Your task to perform on an android device: star an email in the gmail app Image 0: 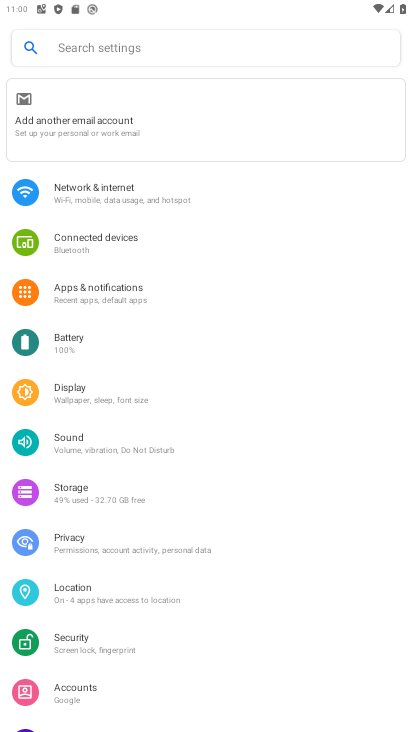
Step 0: press home button
Your task to perform on an android device: star an email in the gmail app Image 1: 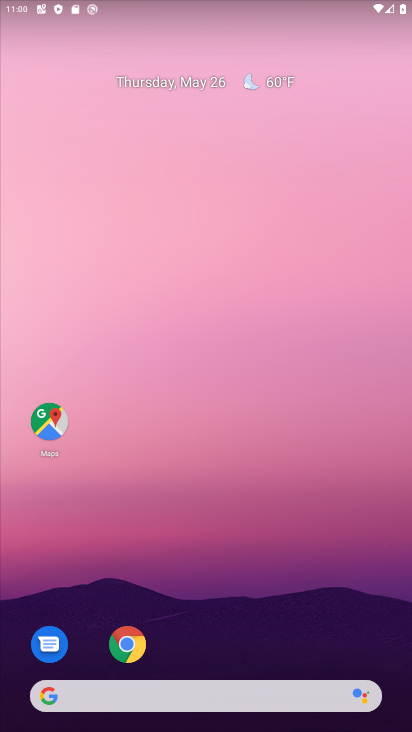
Step 1: drag from (199, 674) to (300, 240)
Your task to perform on an android device: star an email in the gmail app Image 2: 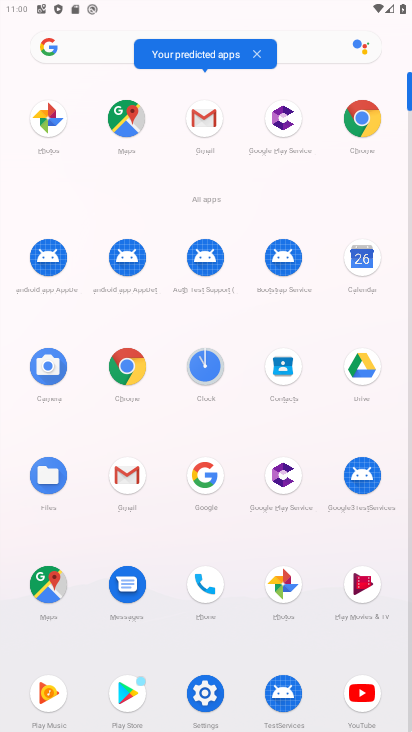
Step 2: click (107, 488)
Your task to perform on an android device: star an email in the gmail app Image 3: 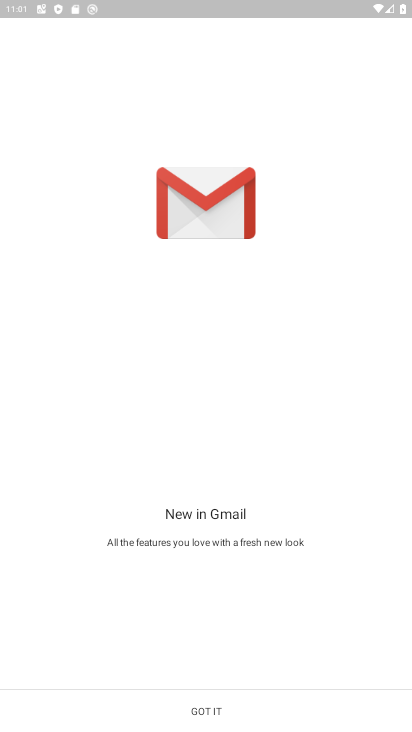
Step 3: click (202, 704)
Your task to perform on an android device: star an email in the gmail app Image 4: 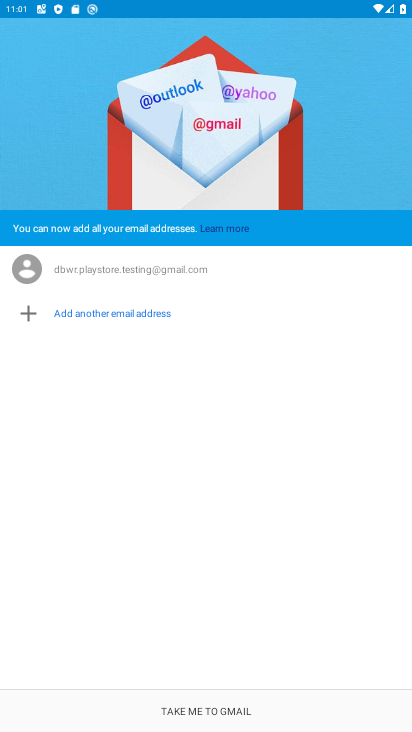
Step 4: click (218, 708)
Your task to perform on an android device: star an email in the gmail app Image 5: 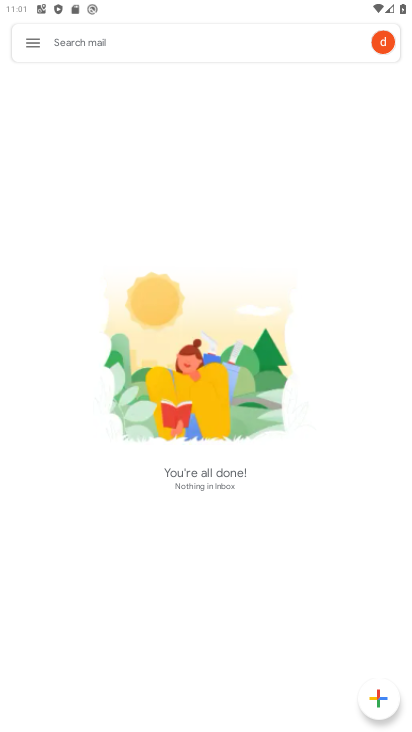
Step 5: click (39, 28)
Your task to perform on an android device: star an email in the gmail app Image 6: 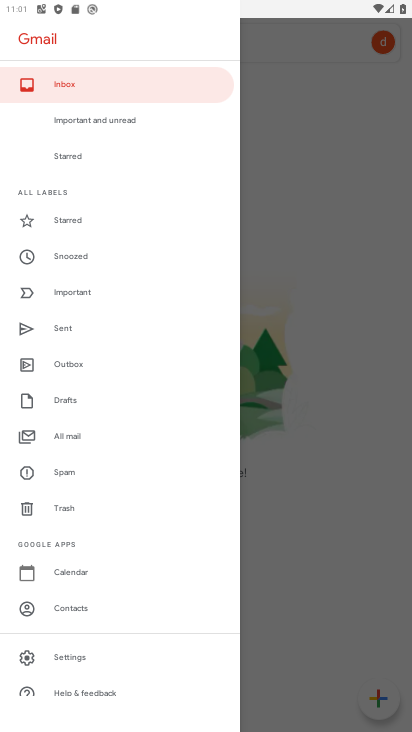
Step 6: click (107, 445)
Your task to perform on an android device: star an email in the gmail app Image 7: 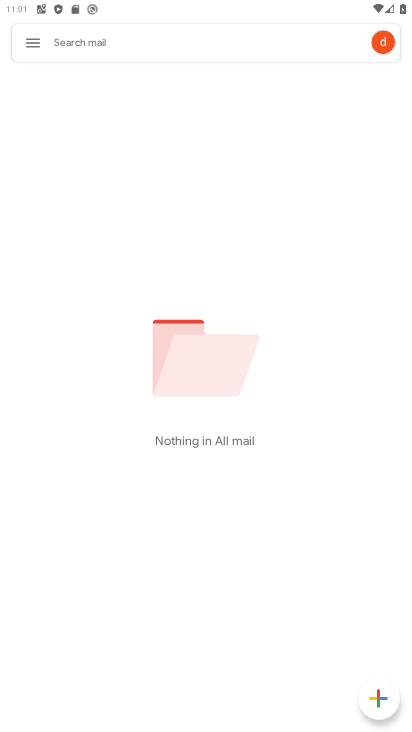
Step 7: task complete